Your task to perform on an android device: Show me the alarms in the clock app Image 0: 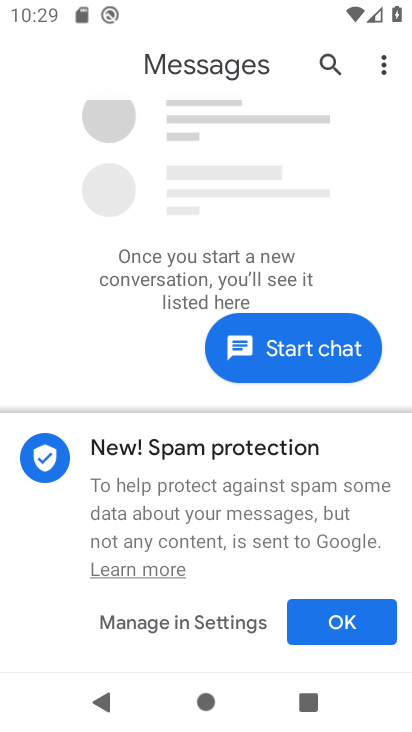
Step 0: press home button
Your task to perform on an android device: Show me the alarms in the clock app Image 1: 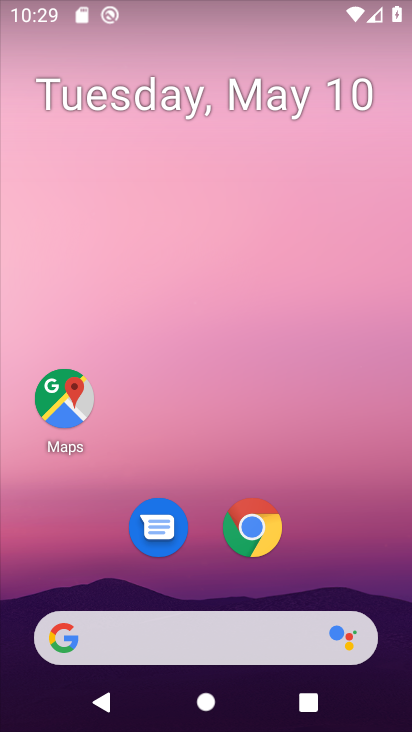
Step 1: drag from (360, 515) to (284, 37)
Your task to perform on an android device: Show me the alarms in the clock app Image 2: 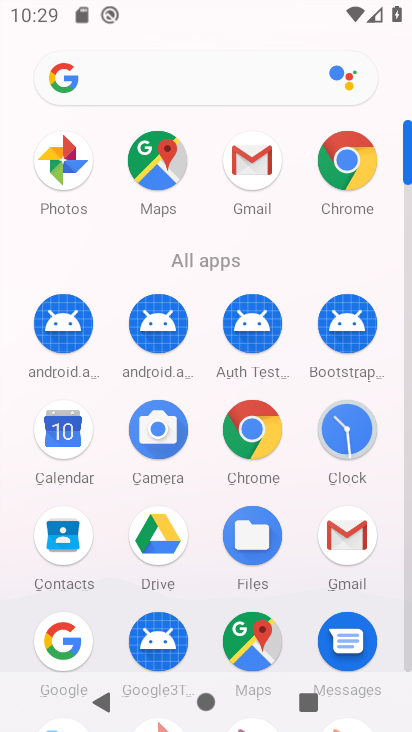
Step 2: click (345, 435)
Your task to perform on an android device: Show me the alarms in the clock app Image 3: 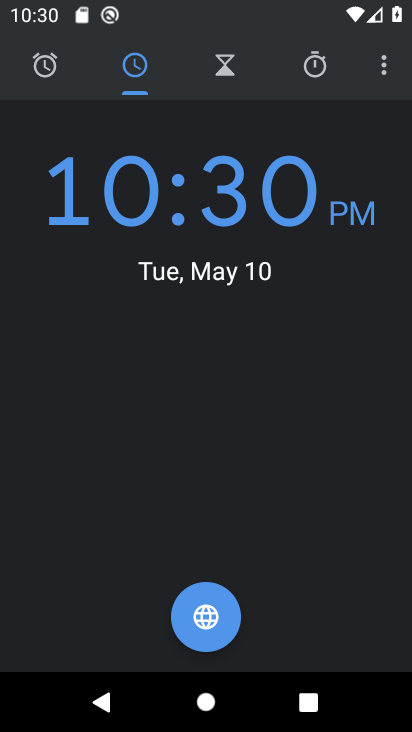
Step 3: click (34, 73)
Your task to perform on an android device: Show me the alarms in the clock app Image 4: 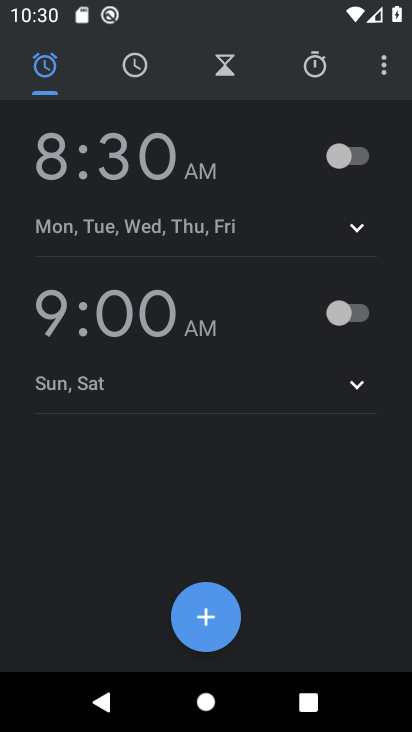
Step 4: task complete